Your task to perform on an android device: What's the weather? Image 0: 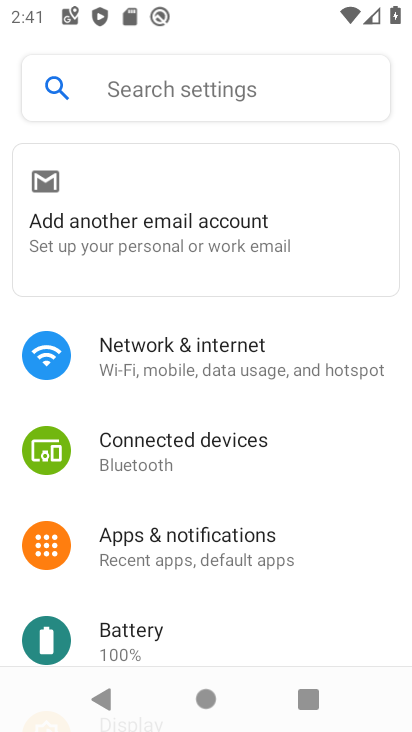
Step 0: press back button
Your task to perform on an android device: What's the weather? Image 1: 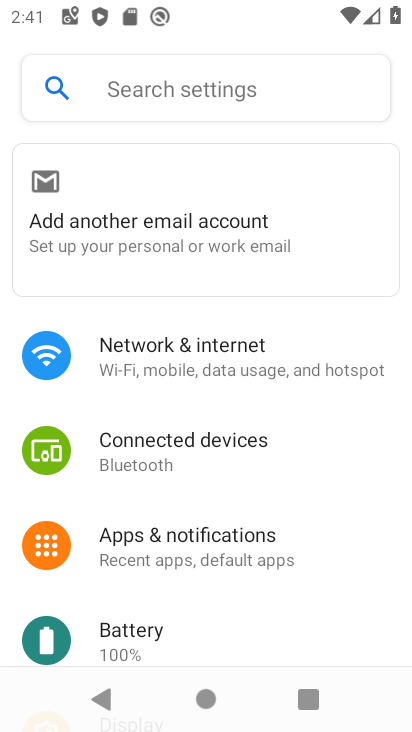
Step 1: press back button
Your task to perform on an android device: What's the weather? Image 2: 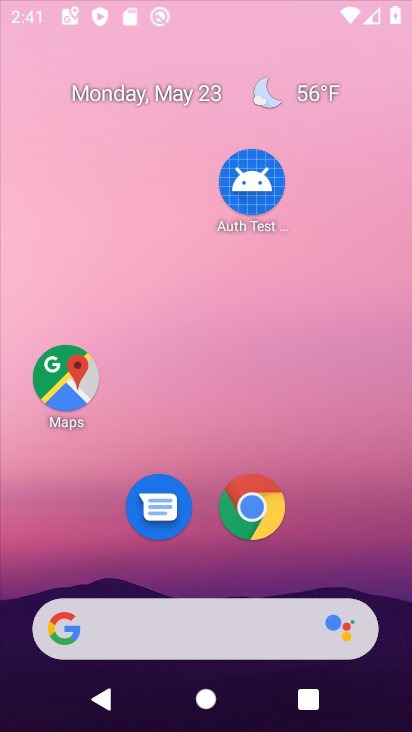
Step 2: press back button
Your task to perform on an android device: What's the weather? Image 3: 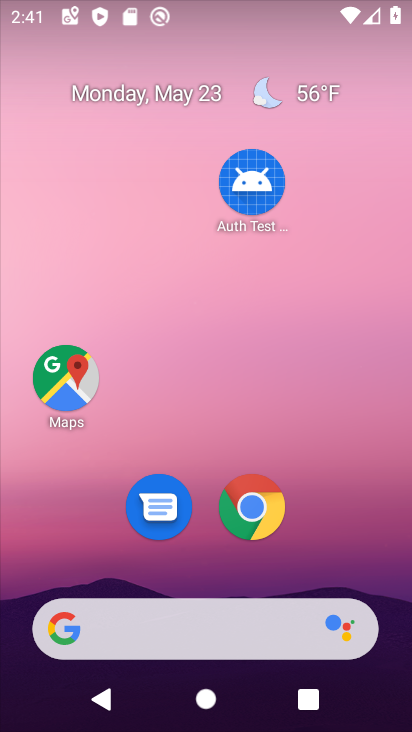
Step 3: press back button
Your task to perform on an android device: What's the weather? Image 4: 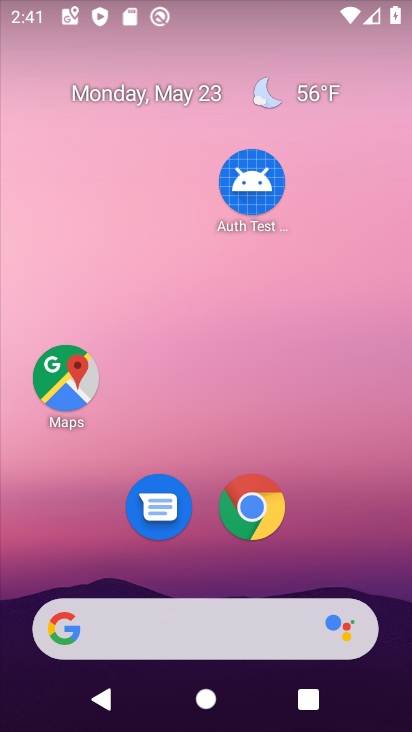
Step 4: drag from (0, 162) to (405, 399)
Your task to perform on an android device: What's the weather? Image 5: 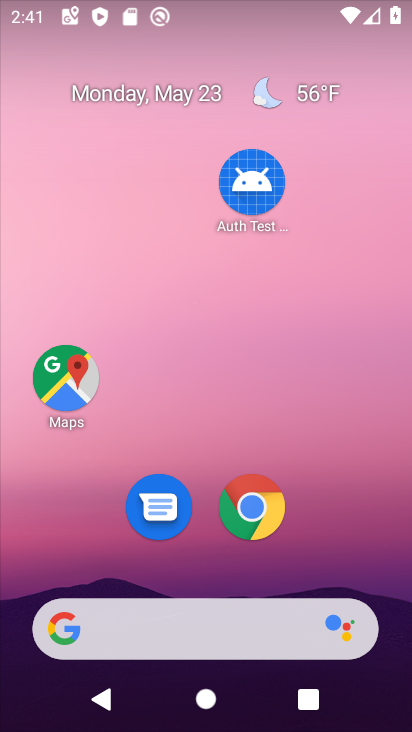
Step 5: drag from (0, 155) to (409, 541)
Your task to perform on an android device: What's the weather? Image 6: 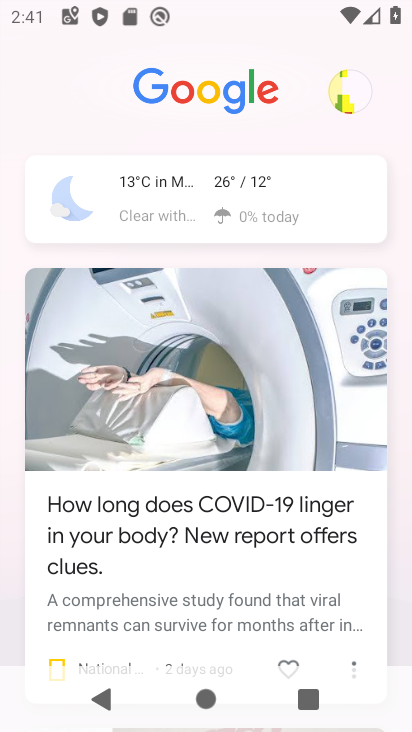
Step 6: click (124, 192)
Your task to perform on an android device: What's the weather? Image 7: 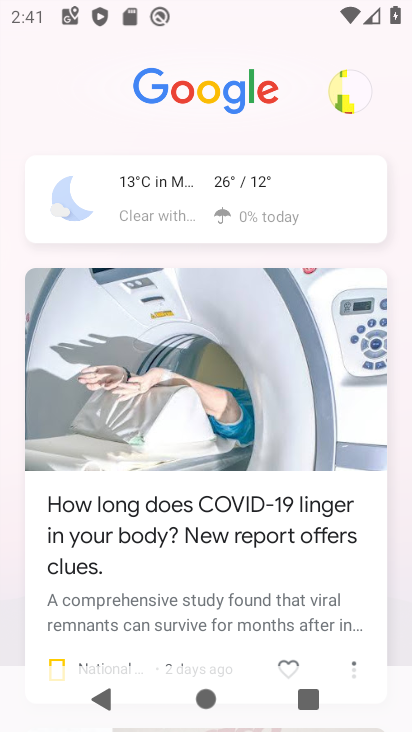
Step 7: click (126, 197)
Your task to perform on an android device: What's the weather? Image 8: 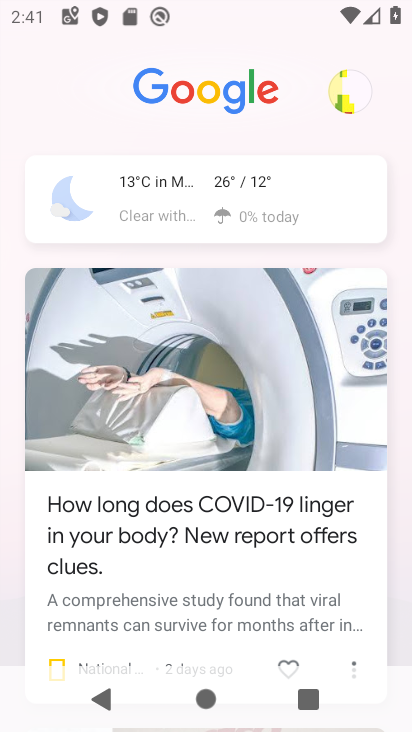
Step 8: click (126, 197)
Your task to perform on an android device: What's the weather? Image 9: 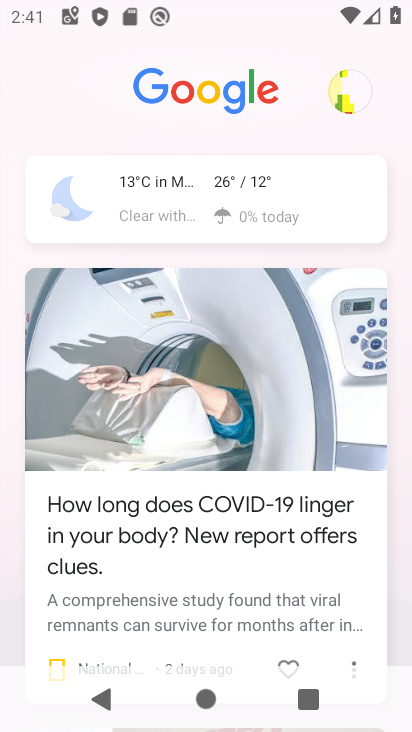
Step 9: click (127, 197)
Your task to perform on an android device: What's the weather? Image 10: 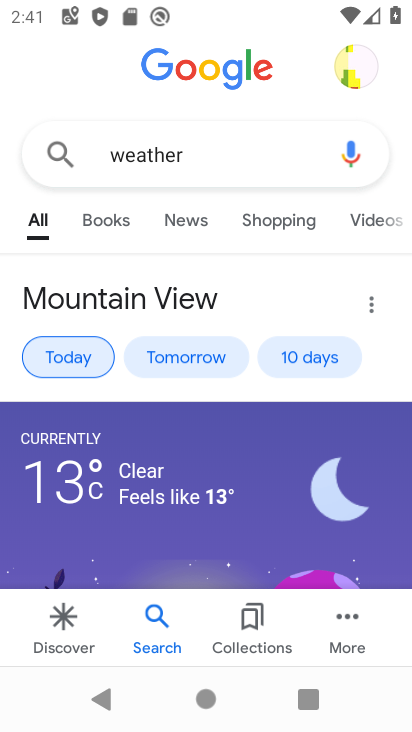
Step 10: click (188, 353)
Your task to perform on an android device: What's the weather? Image 11: 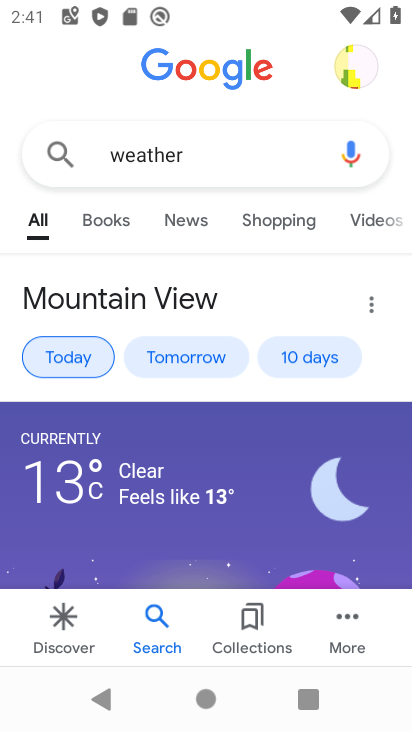
Step 11: click (188, 353)
Your task to perform on an android device: What's the weather? Image 12: 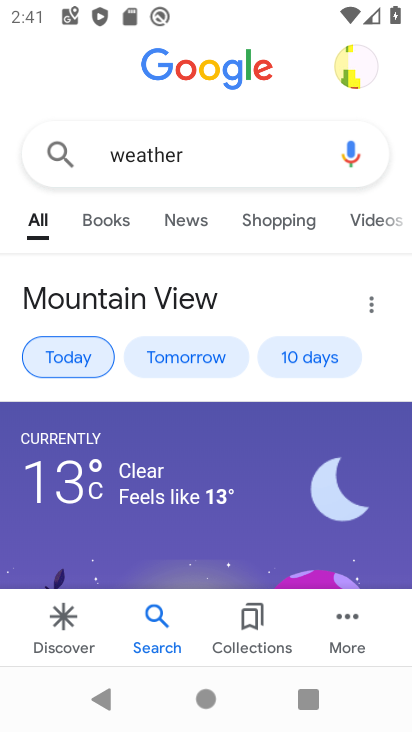
Step 12: click (188, 354)
Your task to perform on an android device: What's the weather? Image 13: 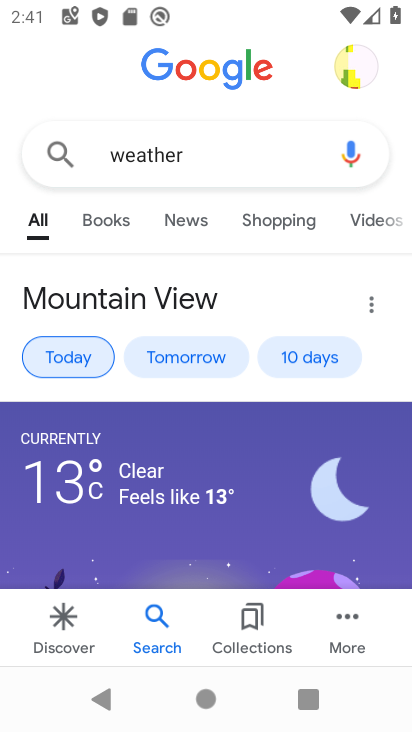
Step 13: click (188, 354)
Your task to perform on an android device: What's the weather? Image 14: 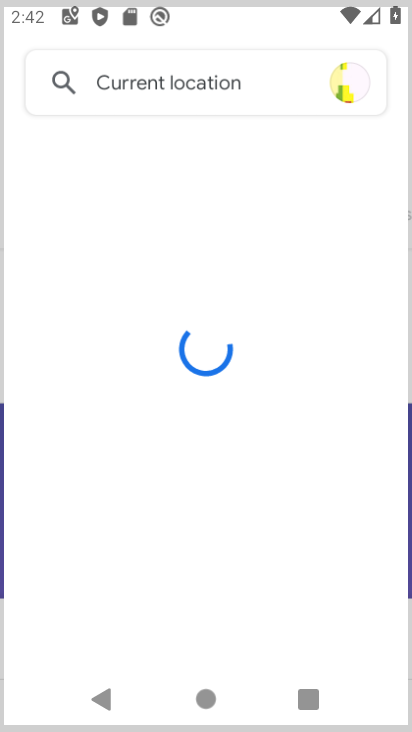
Step 14: click (188, 354)
Your task to perform on an android device: What's the weather? Image 15: 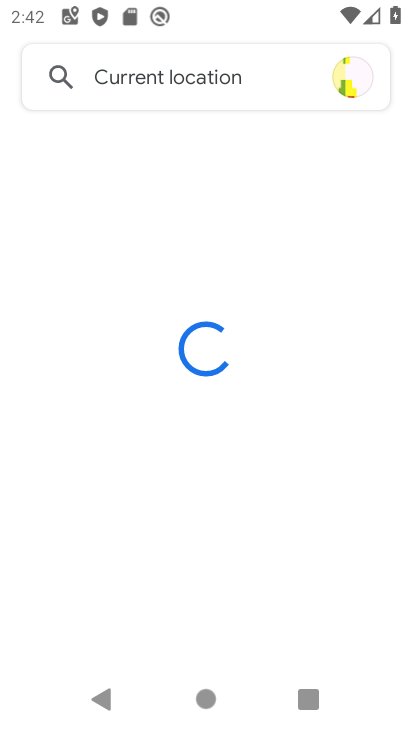
Step 15: click (189, 355)
Your task to perform on an android device: What's the weather? Image 16: 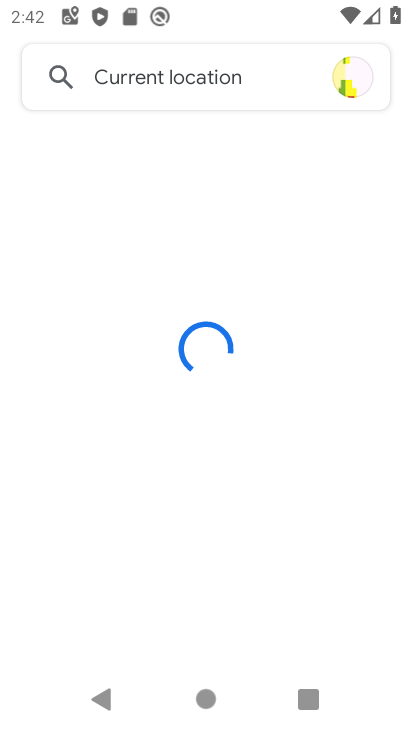
Step 16: click (189, 355)
Your task to perform on an android device: What's the weather? Image 17: 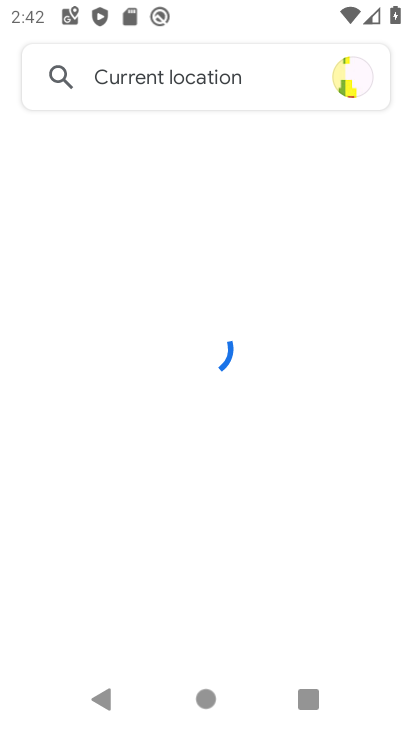
Step 17: click (189, 354)
Your task to perform on an android device: What's the weather? Image 18: 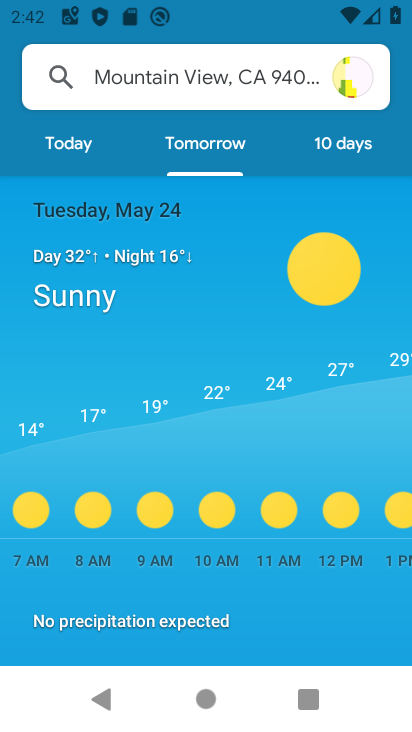
Step 18: task complete